Your task to perform on an android device: Go to Yahoo.com Image 0: 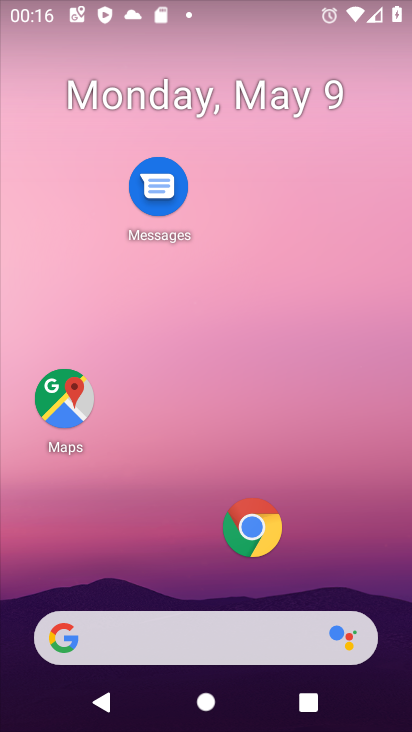
Step 0: click (250, 529)
Your task to perform on an android device: Go to Yahoo.com Image 1: 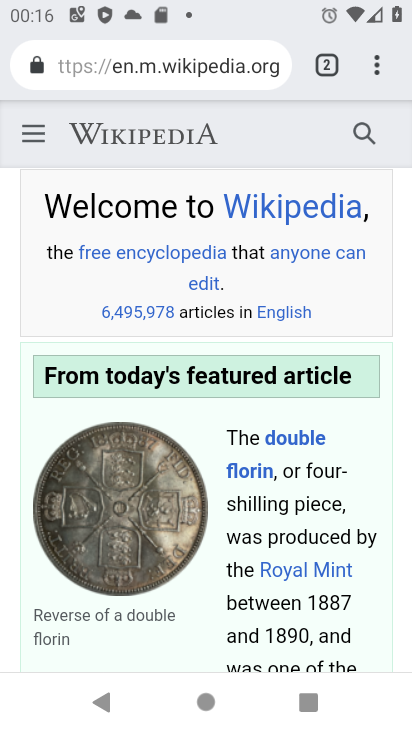
Step 1: press back button
Your task to perform on an android device: Go to Yahoo.com Image 2: 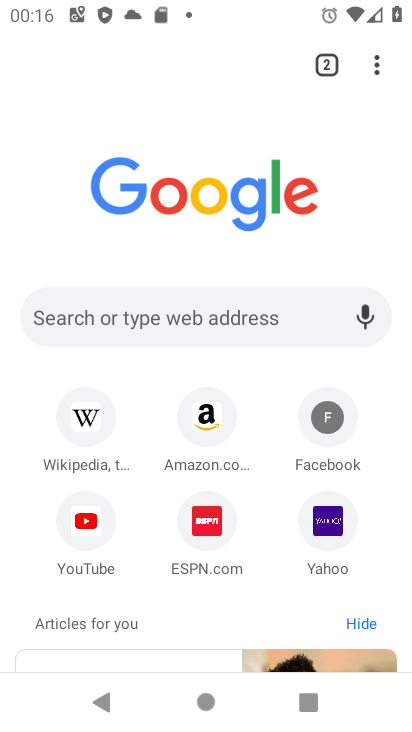
Step 2: click (323, 535)
Your task to perform on an android device: Go to Yahoo.com Image 3: 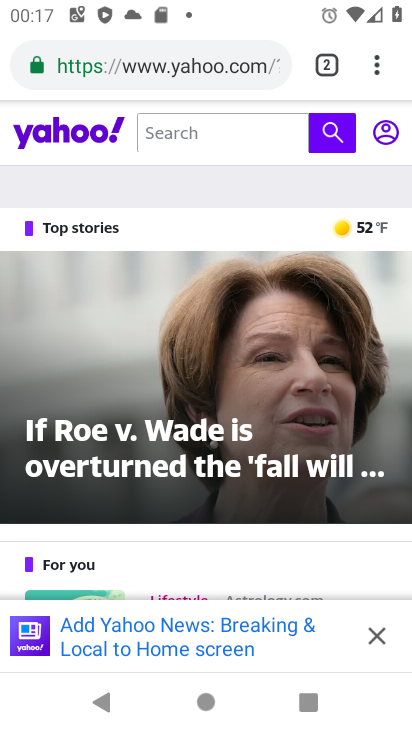
Step 3: task complete